Your task to perform on an android device: Open wifi settings Image 0: 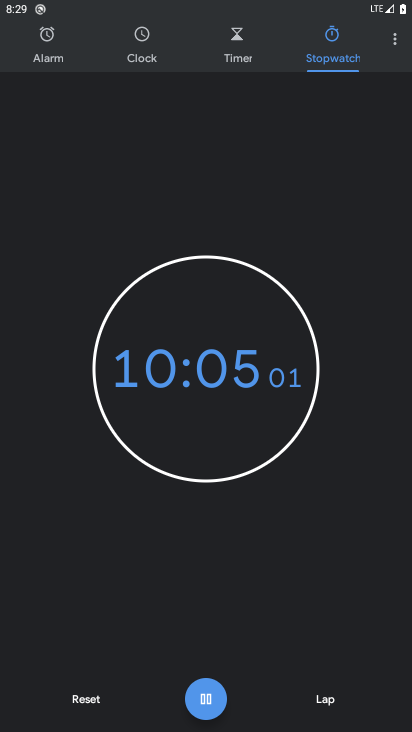
Step 0: press home button
Your task to perform on an android device: Open wifi settings Image 1: 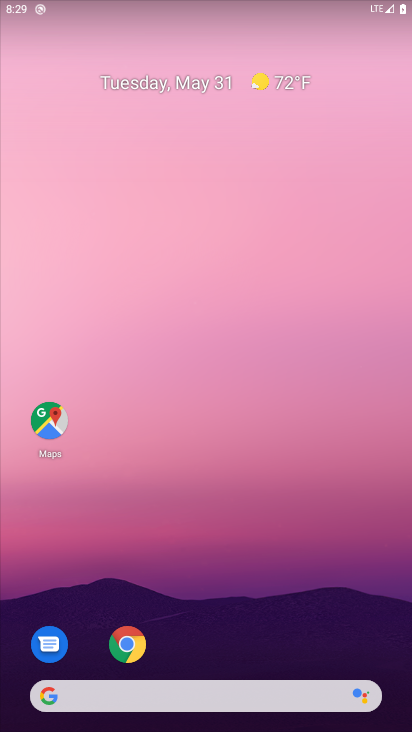
Step 1: drag from (222, 649) to (200, 136)
Your task to perform on an android device: Open wifi settings Image 2: 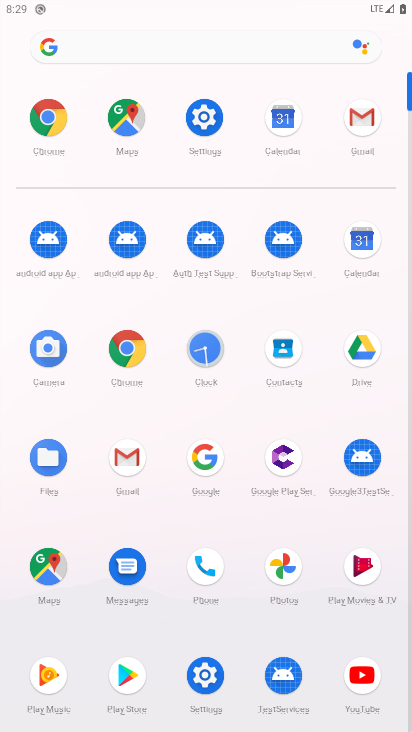
Step 2: click (205, 107)
Your task to perform on an android device: Open wifi settings Image 3: 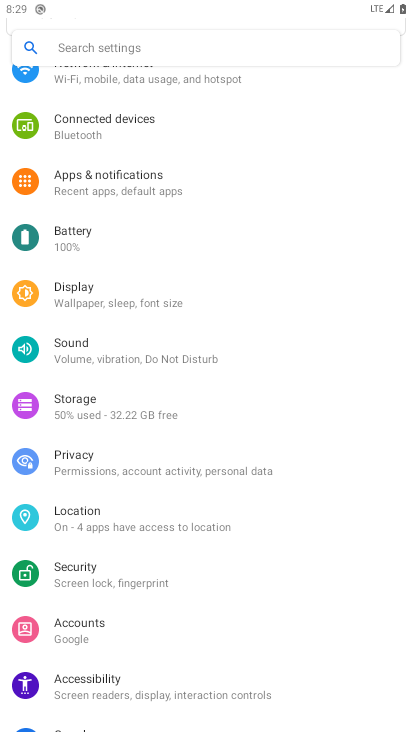
Step 3: drag from (121, 132) to (113, 601)
Your task to perform on an android device: Open wifi settings Image 4: 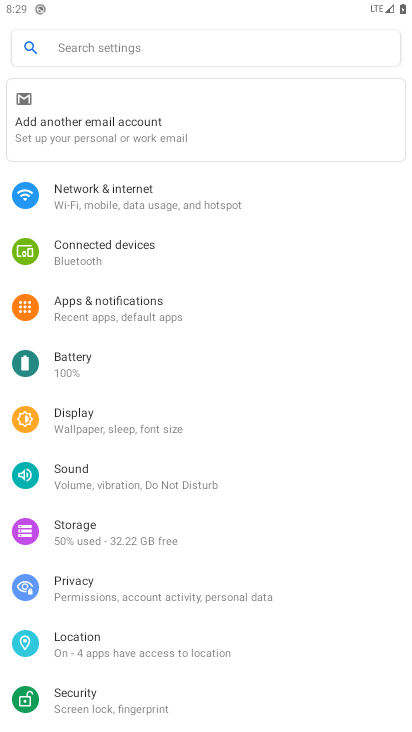
Step 4: click (95, 188)
Your task to perform on an android device: Open wifi settings Image 5: 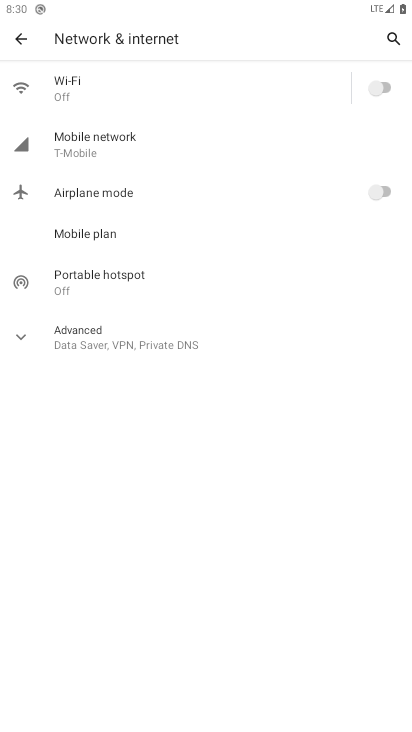
Step 5: click (114, 80)
Your task to perform on an android device: Open wifi settings Image 6: 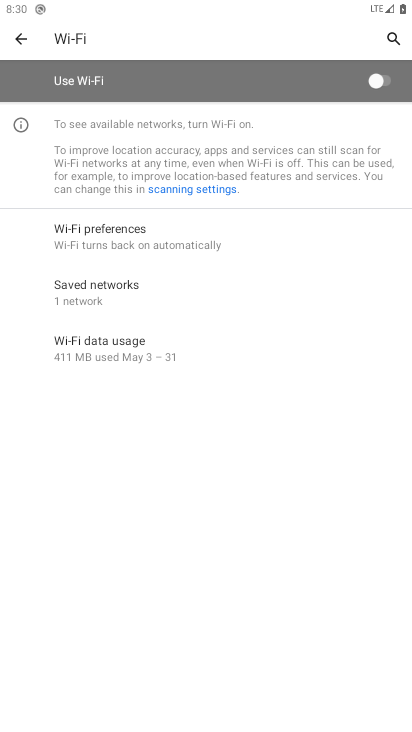
Step 6: click (377, 80)
Your task to perform on an android device: Open wifi settings Image 7: 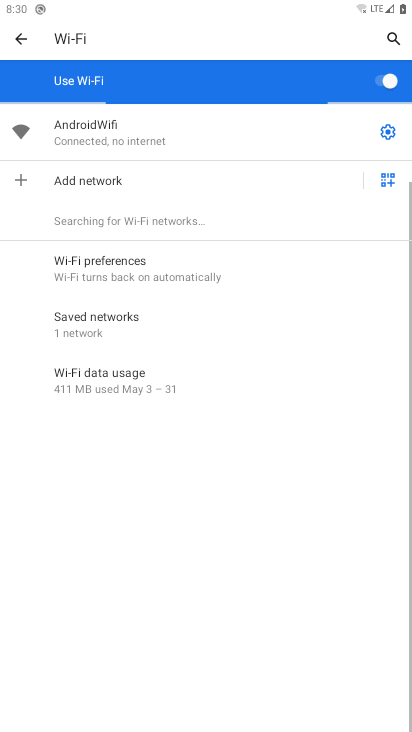
Step 7: task complete